Your task to perform on an android device: Open Chrome and go to the settings page Image 0: 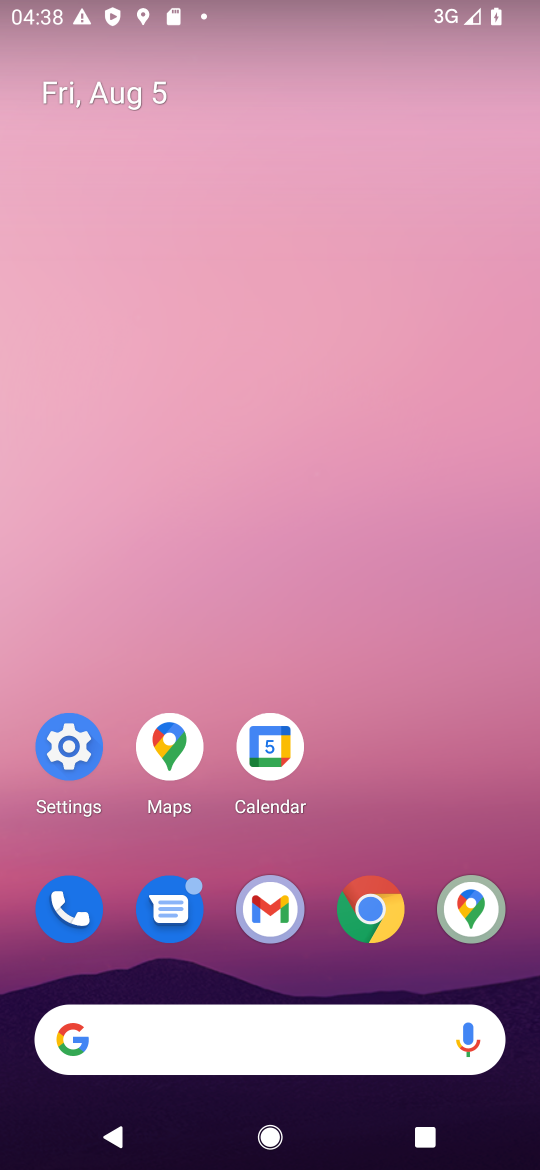
Step 0: click (370, 905)
Your task to perform on an android device: Open Chrome and go to the settings page Image 1: 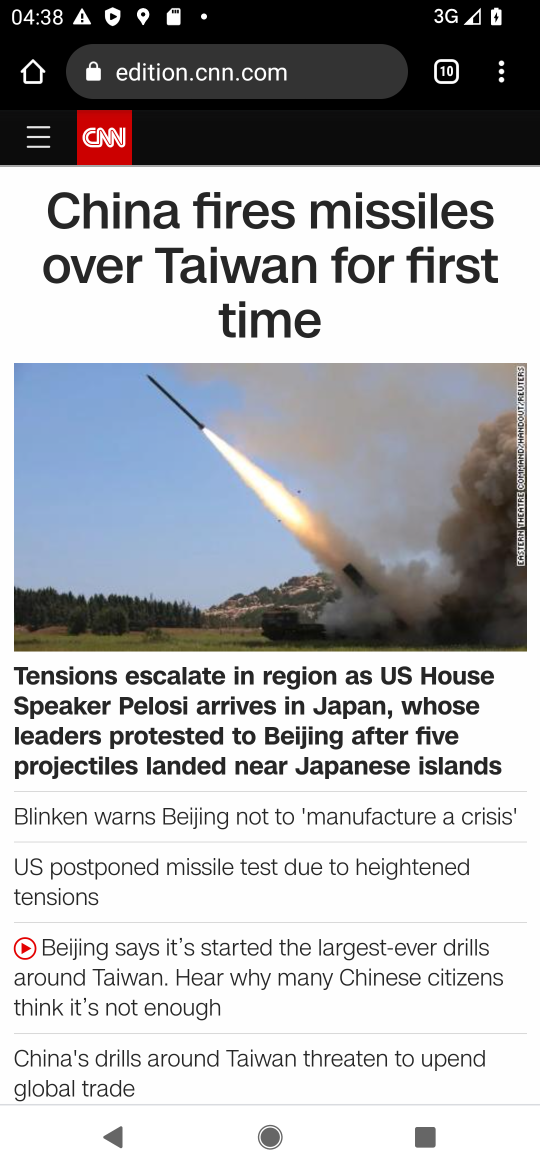
Step 1: click (506, 65)
Your task to perform on an android device: Open Chrome and go to the settings page Image 2: 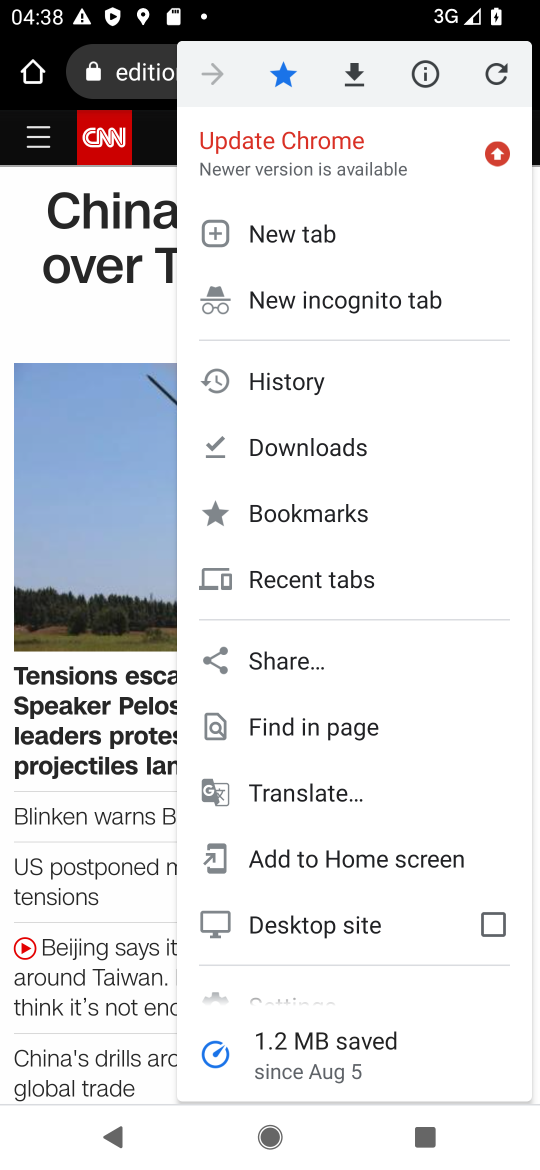
Step 2: drag from (312, 859) to (262, 242)
Your task to perform on an android device: Open Chrome and go to the settings page Image 3: 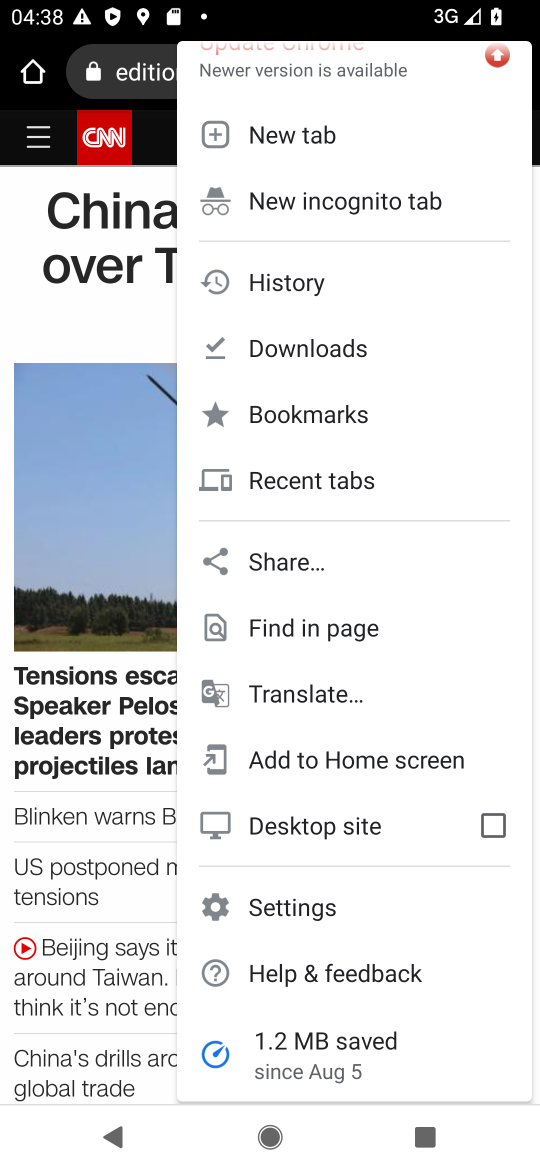
Step 3: click (305, 903)
Your task to perform on an android device: Open Chrome and go to the settings page Image 4: 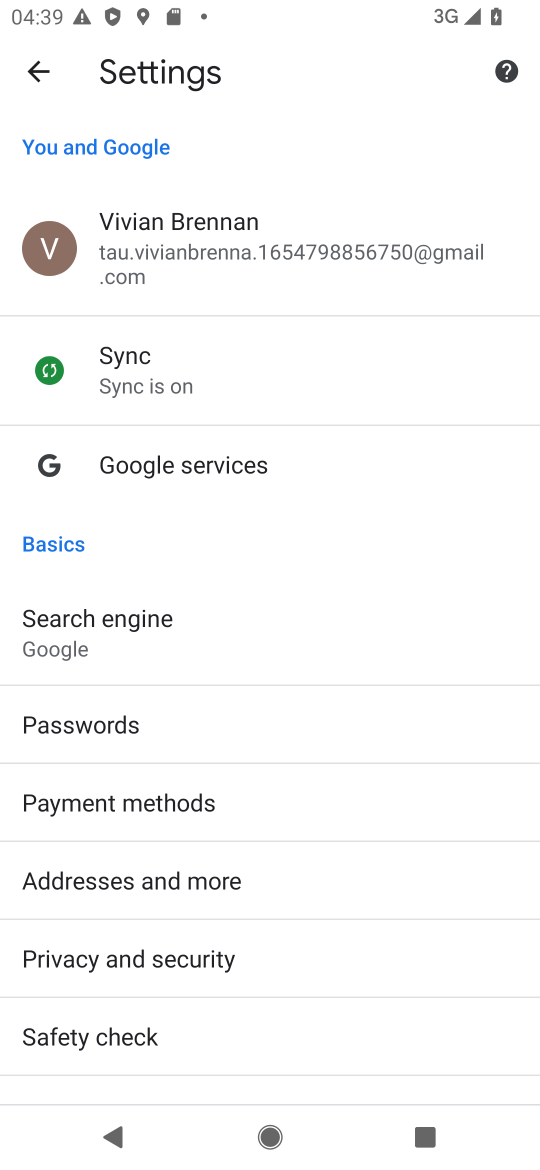
Step 4: task complete